Your task to perform on an android device: turn on priority inbox in the gmail app Image 0: 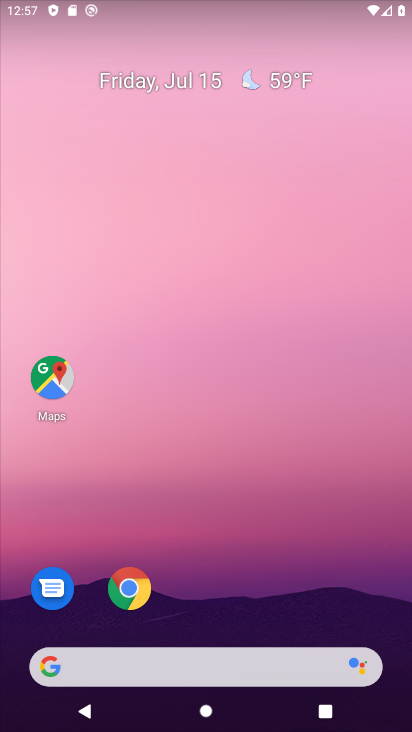
Step 0: drag from (221, 601) to (218, 143)
Your task to perform on an android device: turn on priority inbox in the gmail app Image 1: 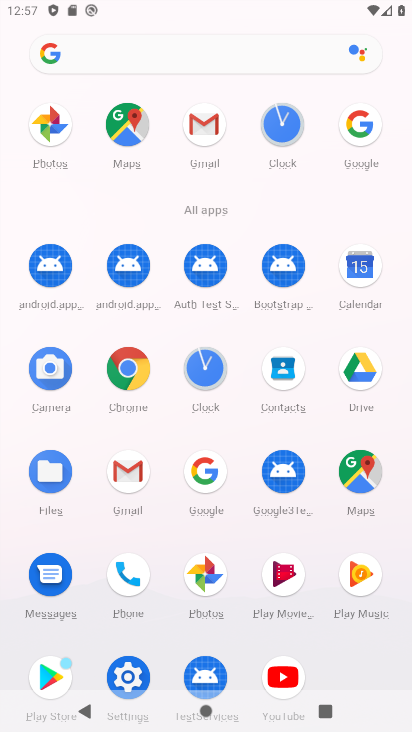
Step 1: click (136, 469)
Your task to perform on an android device: turn on priority inbox in the gmail app Image 2: 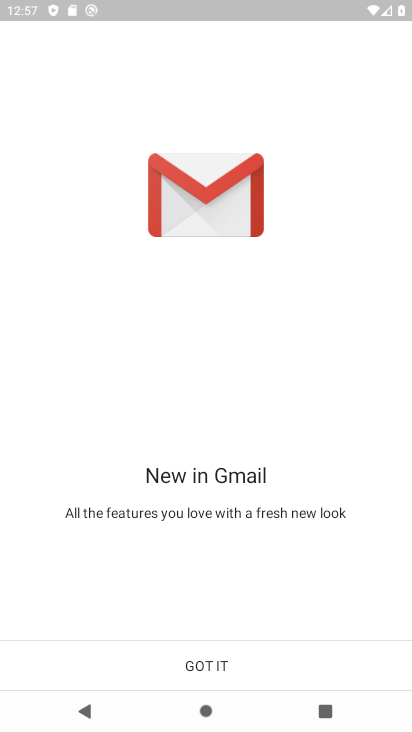
Step 2: click (205, 655)
Your task to perform on an android device: turn on priority inbox in the gmail app Image 3: 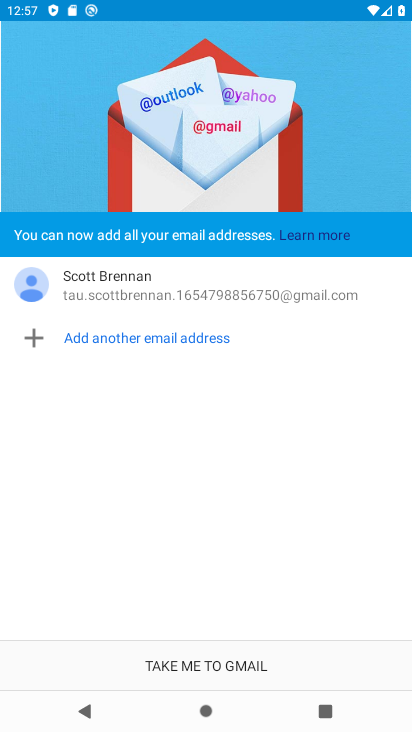
Step 3: click (210, 655)
Your task to perform on an android device: turn on priority inbox in the gmail app Image 4: 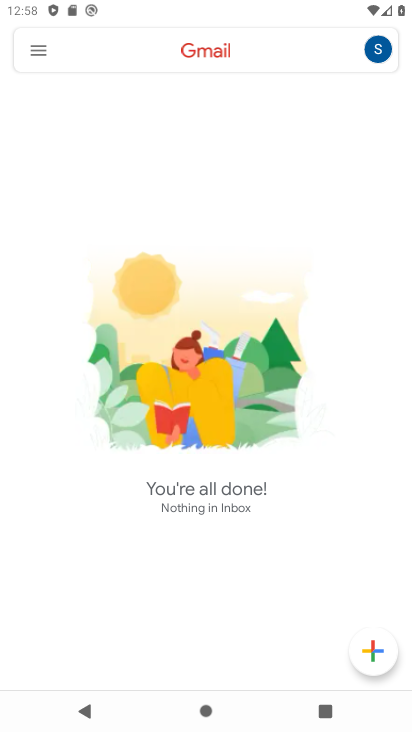
Step 4: click (44, 49)
Your task to perform on an android device: turn on priority inbox in the gmail app Image 5: 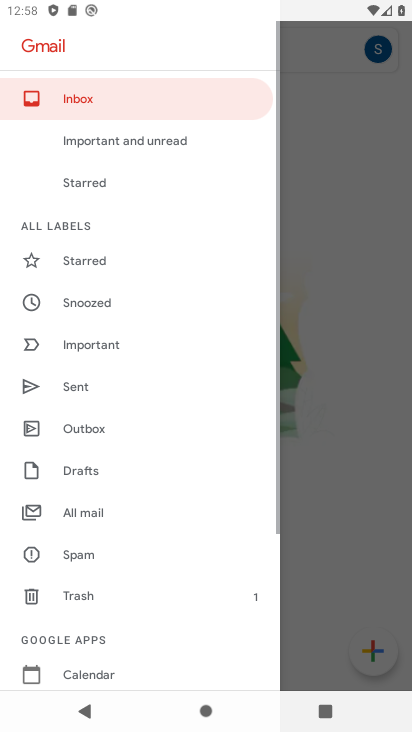
Step 5: drag from (99, 659) to (79, 290)
Your task to perform on an android device: turn on priority inbox in the gmail app Image 6: 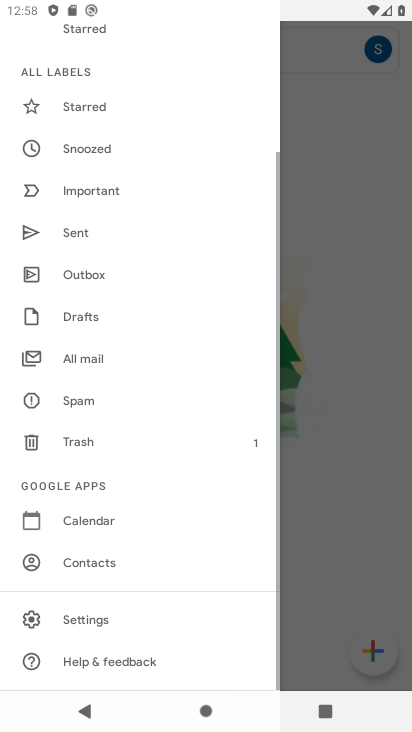
Step 6: click (74, 627)
Your task to perform on an android device: turn on priority inbox in the gmail app Image 7: 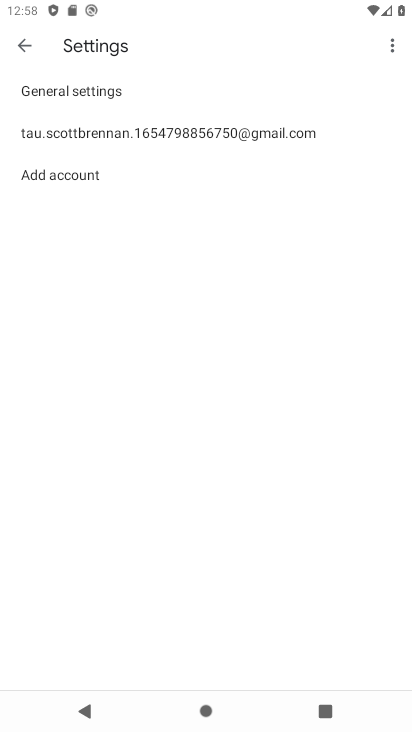
Step 7: click (77, 133)
Your task to perform on an android device: turn on priority inbox in the gmail app Image 8: 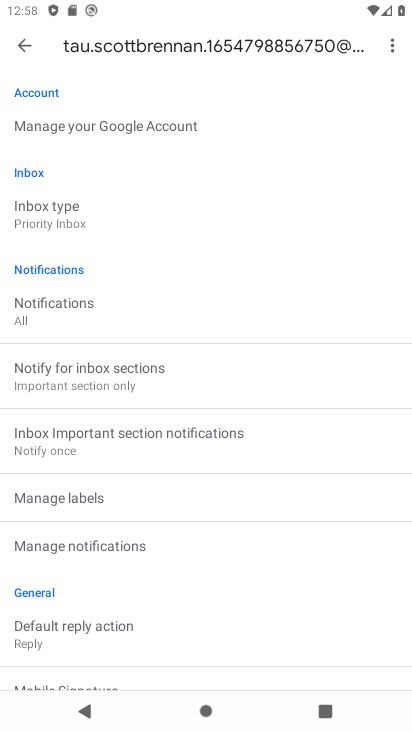
Step 8: click (60, 214)
Your task to perform on an android device: turn on priority inbox in the gmail app Image 9: 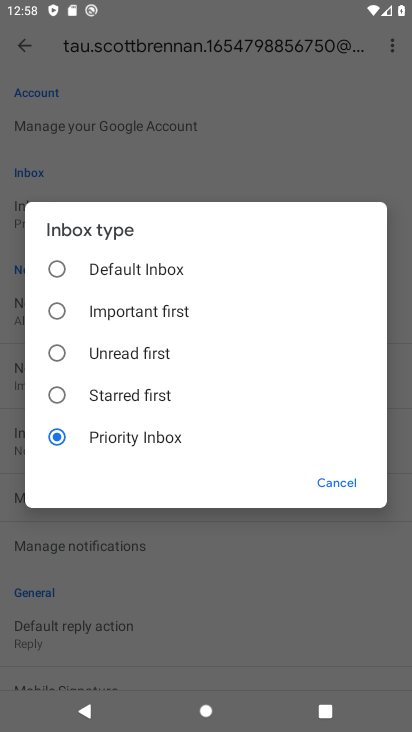
Step 9: task complete